Your task to perform on an android device: Go to Google Image 0: 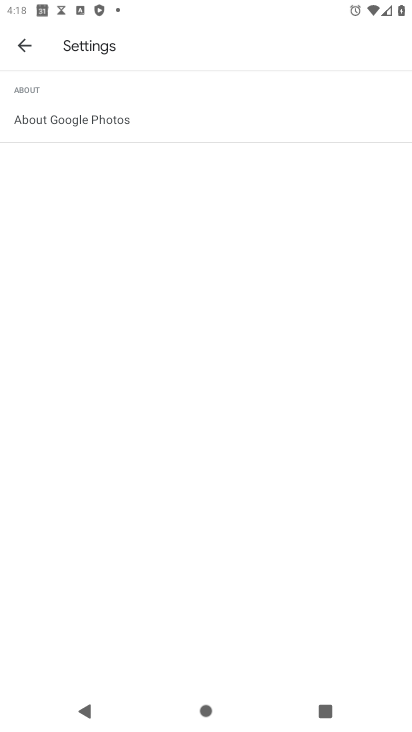
Step 0: press home button
Your task to perform on an android device: Go to Google Image 1: 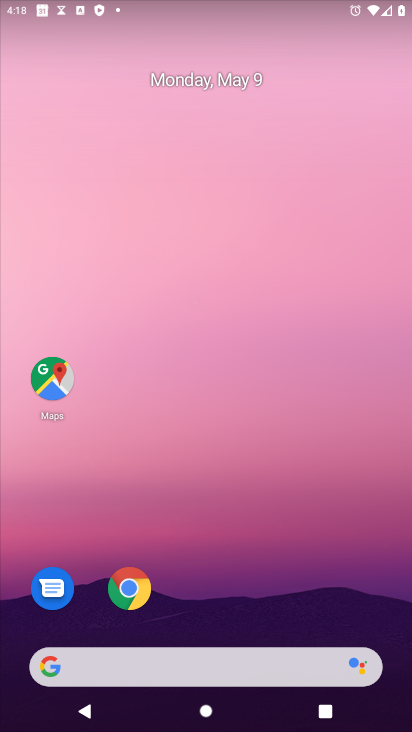
Step 1: drag from (223, 355) to (184, 160)
Your task to perform on an android device: Go to Google Image 2: 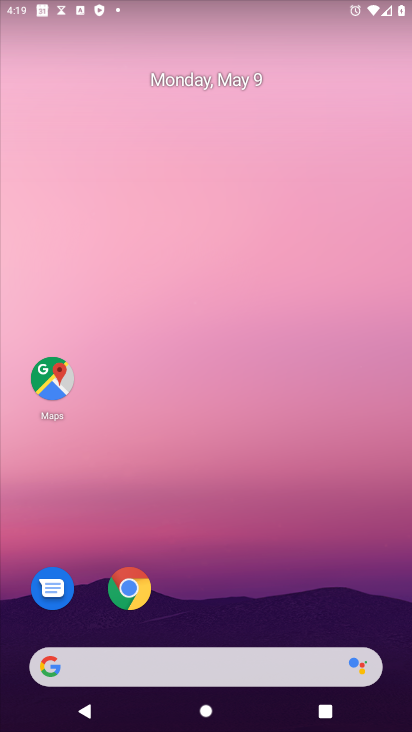
Step 2: drag from (237, 547) to (168, 70)
Your task to perform on an android device: Go to Google Image 3: 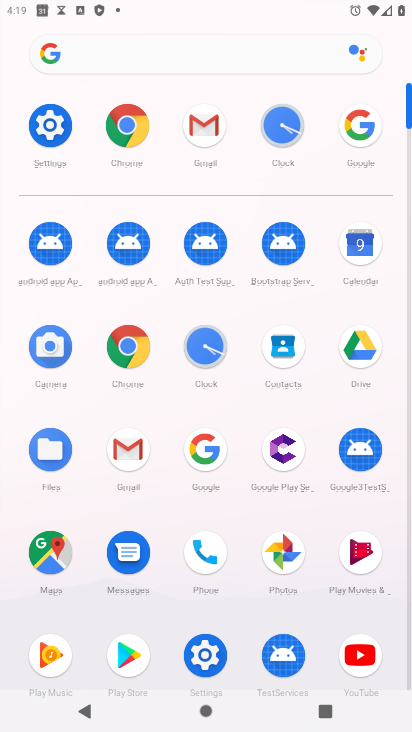
Step 3: click (203, 473)
Your task to perform on an android device: Go to Google Image 4: 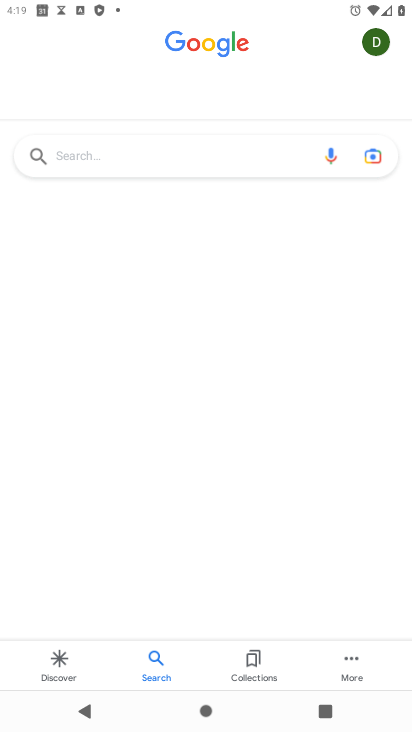
Step 4: task complete